Your task to perform on an android device: turn off data saver in the chrome app Image 0: 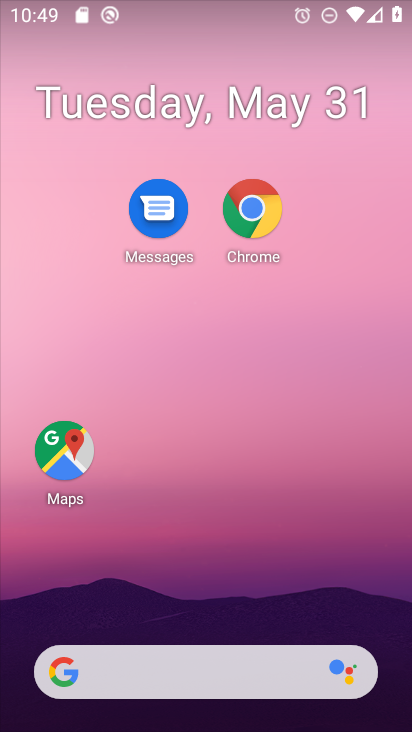
Step 0: press home button
Your task to perform on an android device: turn off data saver in the chrome app Image 1: 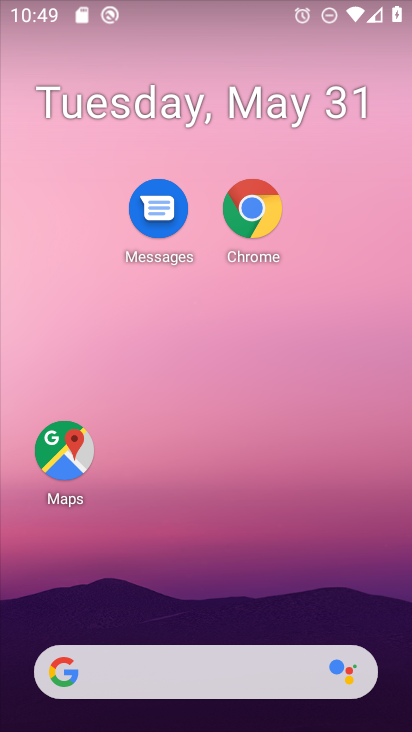
Step 1: click (249, 204)
Your task to perform on an android device: turn off data saver in the chrome app Image 2: 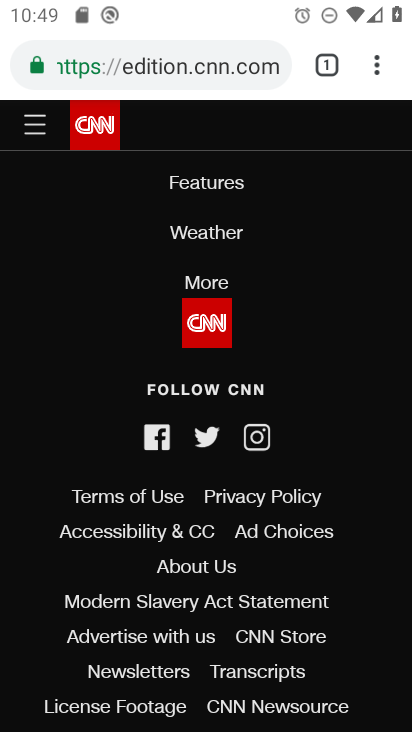
Step 2: click (371, 60)
Your task to perform on an android device: turn off data saver in the chrome app Image 3: 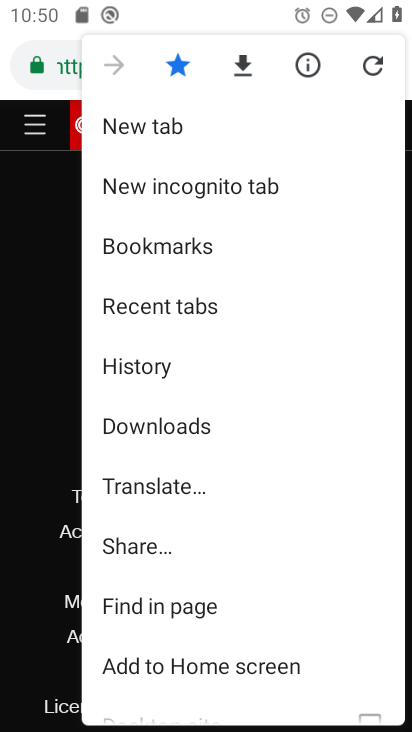
Step 3: drag from (230, 617) to (242, 139)
Your task to perform on an android device: turn off data saver in the chrome app Image 4: 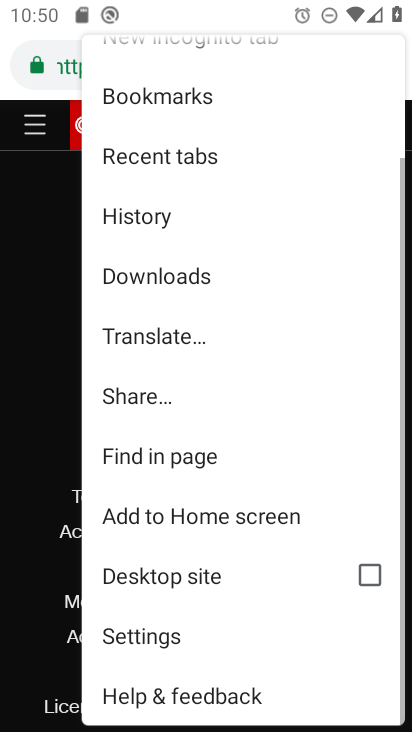
Step 4: click (184, 630)
Your task to perform on an android device: turn off data saver in the chrome app Image 5: 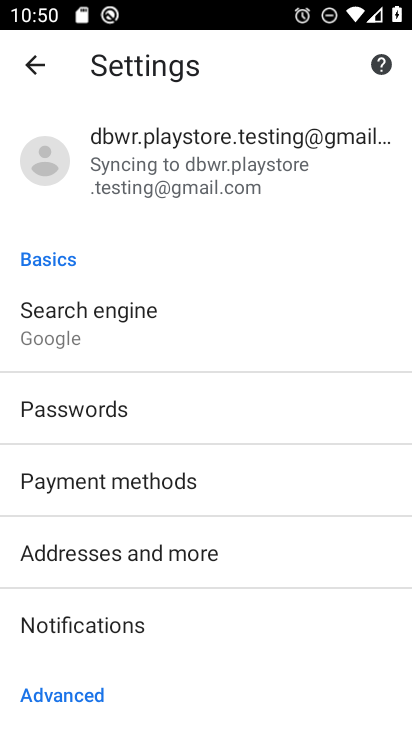
Step 5: drag from (188, 659) to (212, 195)
Your task to perform on an android device: turn off data saver in the chrome app Image 6: 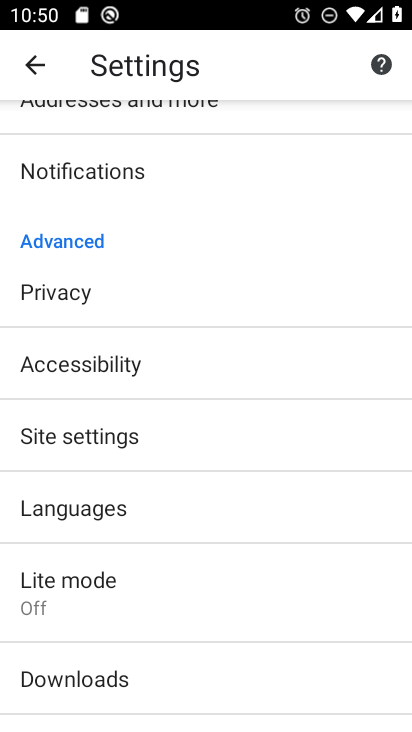
Step 6: click (151, 598)
Your task to perform on an android device: turn off data saver in the chrome app Image 7: 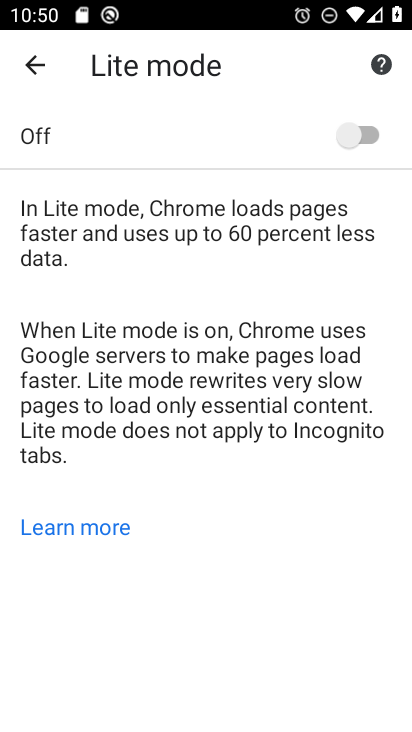
Step 7: task complete